Your task to perform on an android device: Open eBay Image 0: 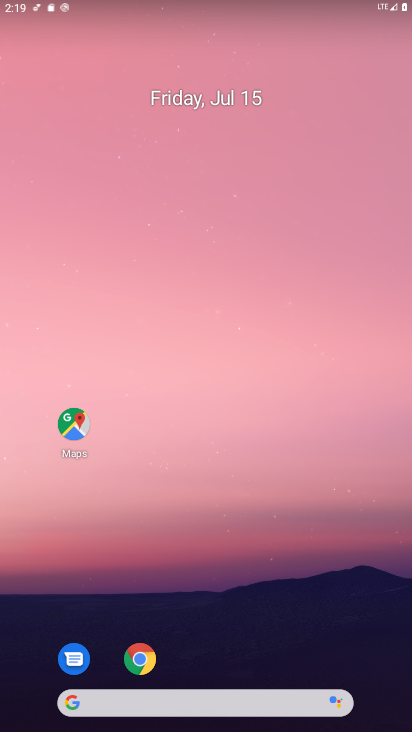
Step 0: drag from (197, 670) to (277, 331)
Your task to perform on an android device: Open eBay Image 1: 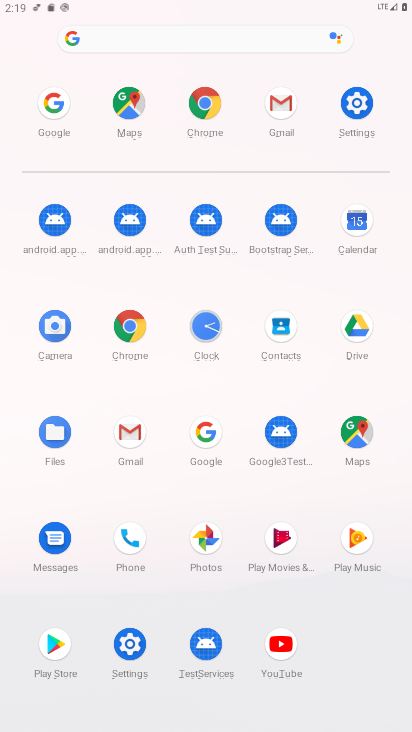
Step 1: click (215, 95)
Your task to perform on an android device: Open eBay Image 2: 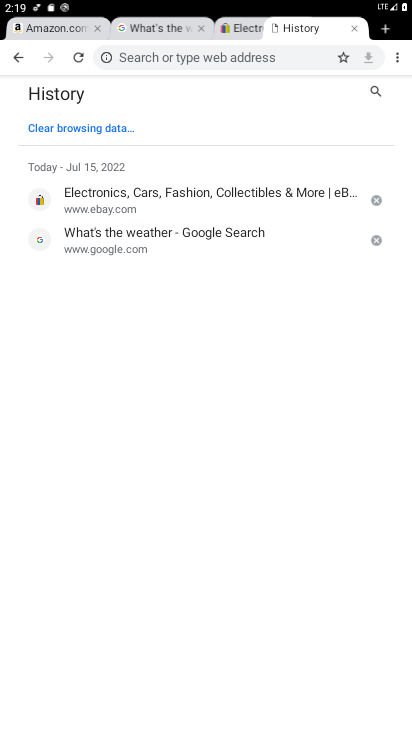
Step 2: click (403, 56)
Your task to perform on an android device: Open eBay Image 3: 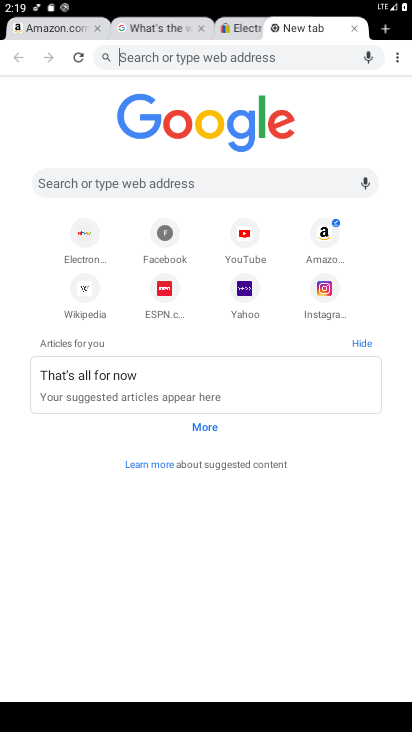
Step 3: click (200, 172)
Your task to perform on an android device: Open eBay Image 4: 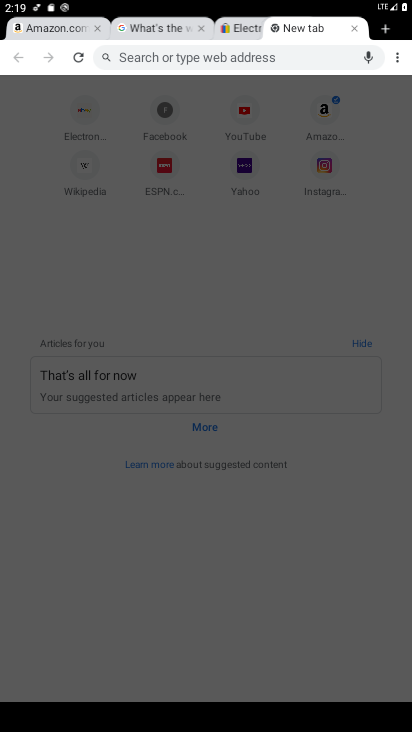
Step 4: type " eBay "
Your task to perform on an android device: Open eBay Image 5: 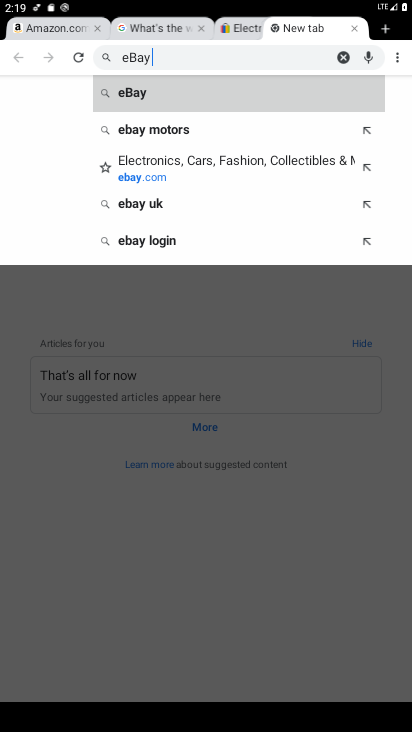
Step 5: click (226, 83)
Your task to perform on an android device: Open eBay Image 6: 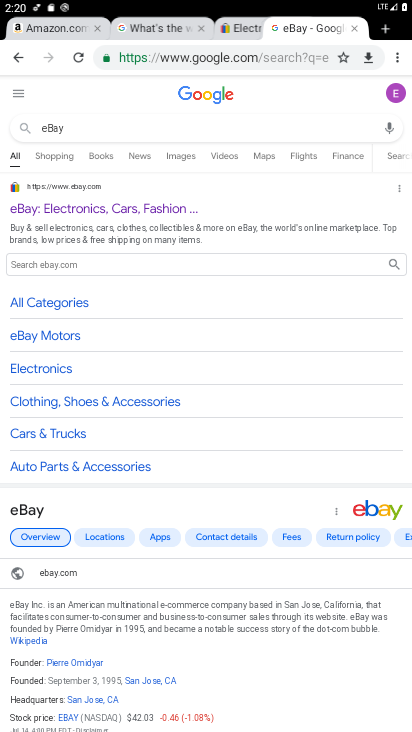
Step 6: task complete